Your task to perform on an android device: remove spam from my inbox in the gmail app Image 0: 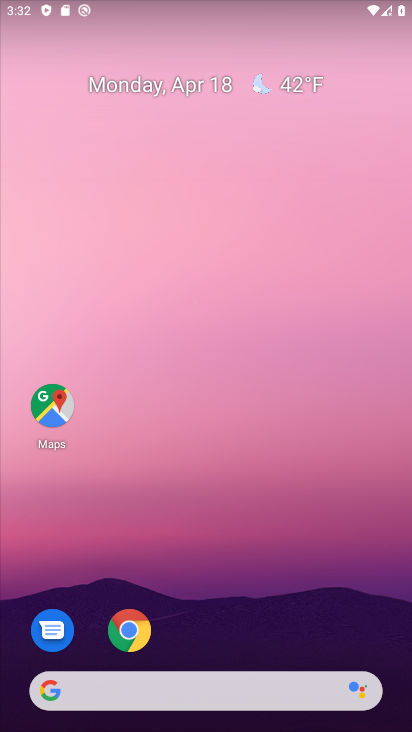
Step 0: drag from (305, 566) to (316, 243)
Your task to perform on an android device: remove spam from my inbox in the gmail app Image 1: 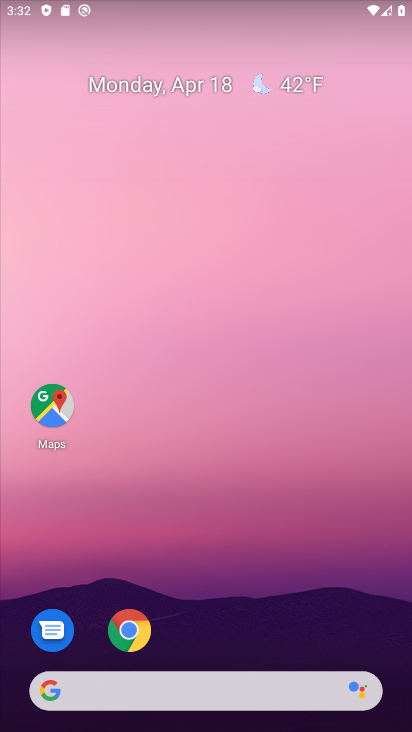
Step 1: drag from (230, 644) to (236, 265)
Your task to perform on an android device: remove spam from my inbox in the gmail app Image 2: 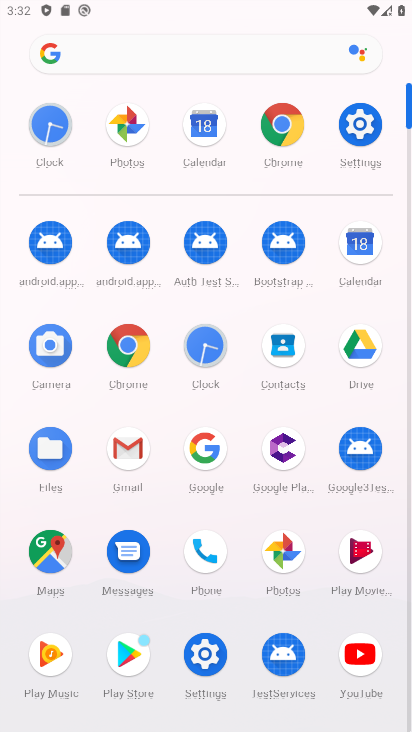
Step 2: click (127, 448)
Your task to perform on an android device: remove spam from my inbox in the gmail app Image 3: 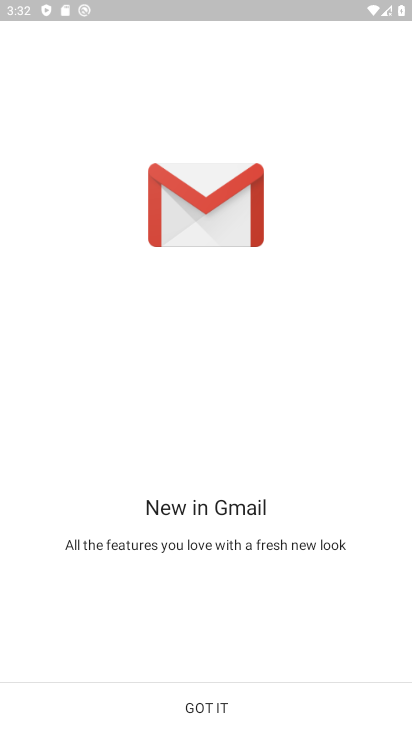
Step 3: click (211, 699)
Your task to perform on an android device: remove spam from my inbox in the gmail app Image 4: 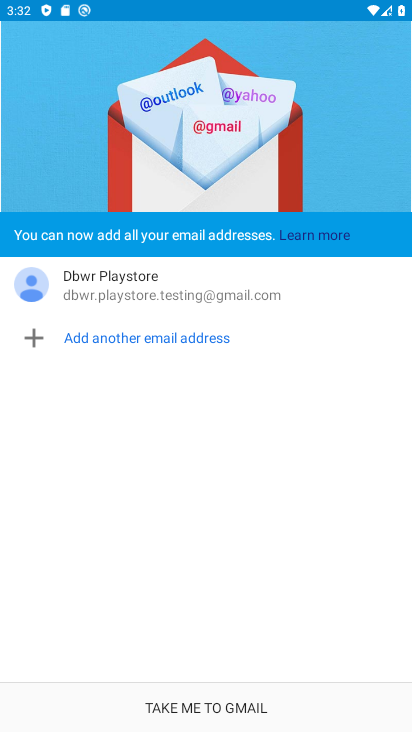
Step 4: click (228, 706)
Your task to perform on an android device: remove spam from my inbox in the gmail app Image 5: 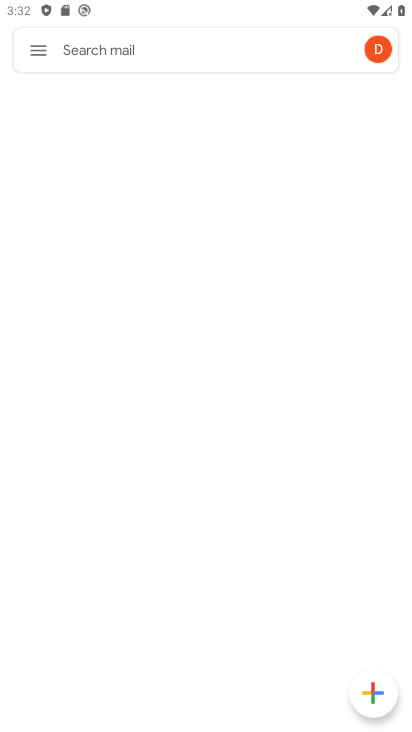
Step 5: click (35, 43)
Your task to perform on an android device: remove spam from my inbox in the gmail app Image 6: 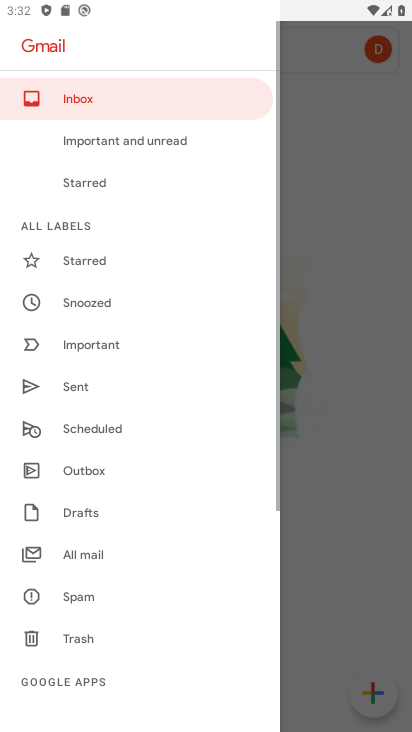
Step 6: click (34, 39)
Your task to perform on an android device: remove spam from my inbox in the gmail app Image 7: 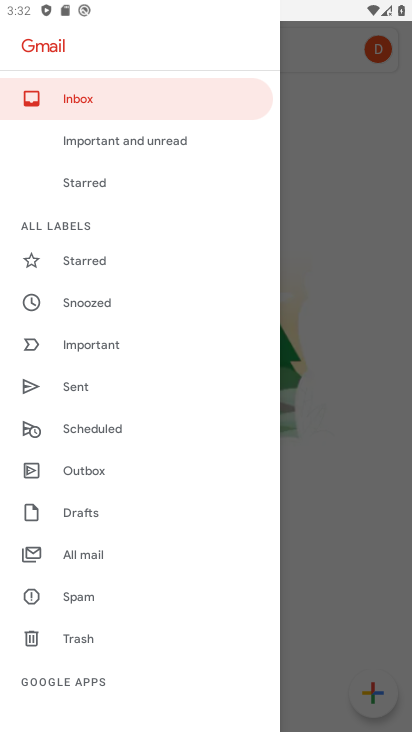
Step 7: drag from (155, 602) to (166, 444)
Your task to perform on an android device: remove spam from my inbox in the gmail app Image 8: 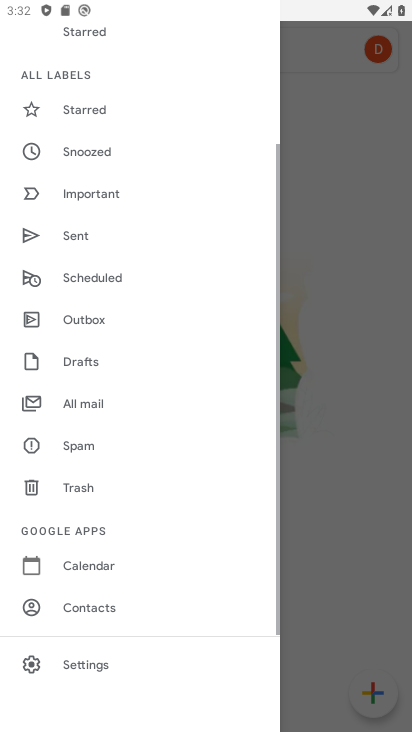
Step 8: click (107, 443)
Your task to perform on an android device: remove spam from my inbox in the gmail app Image 9: 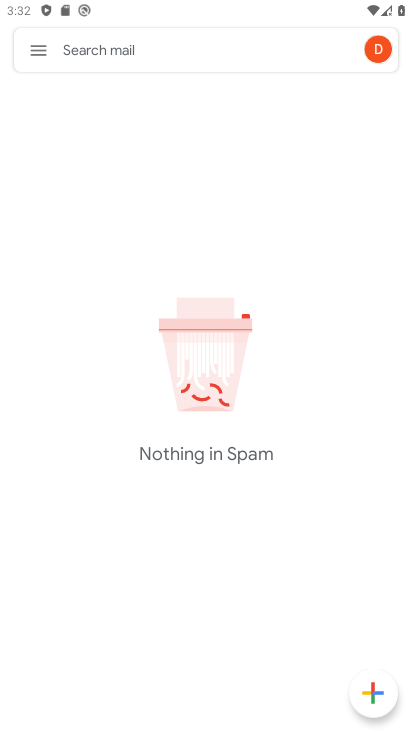
Step 9: task complete